Your task to perform on an android device: Open location settings Image 0: 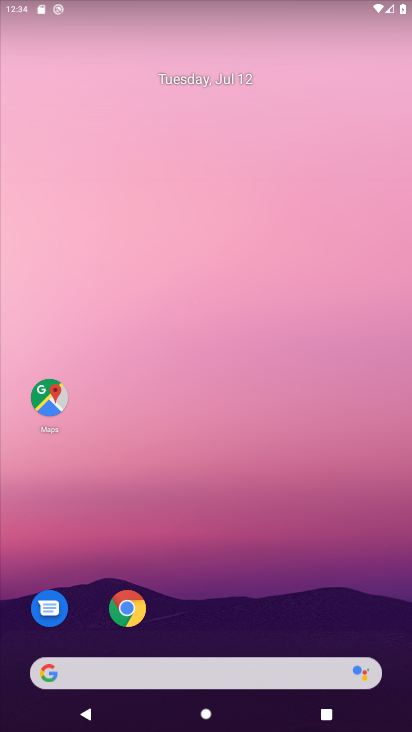
Step 0: drag from (227, 493) to (309, 144)
Your task to perform on an android device: Open location settings Image 1: 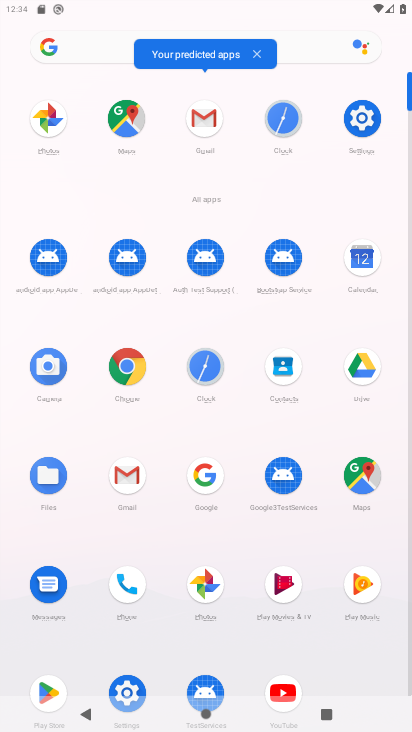
Step 1: click (125, 694)
Your task to perform on an android device: Open location settings Image 2: 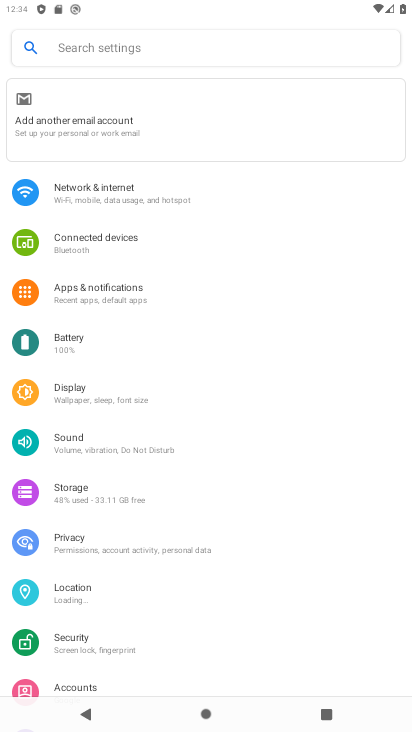
Step 2: click (81, 594)
Your task to perform on an android device: Open location settings Image 3: 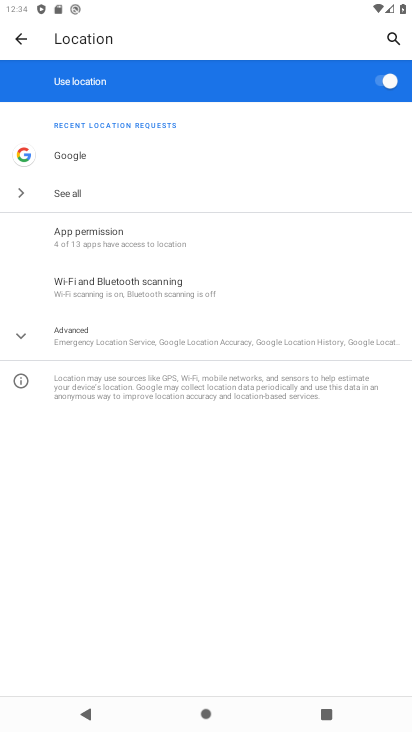
Step 3: task complete